Your task to perform on an android device: What's the weather going to be this weekend? Image 0: 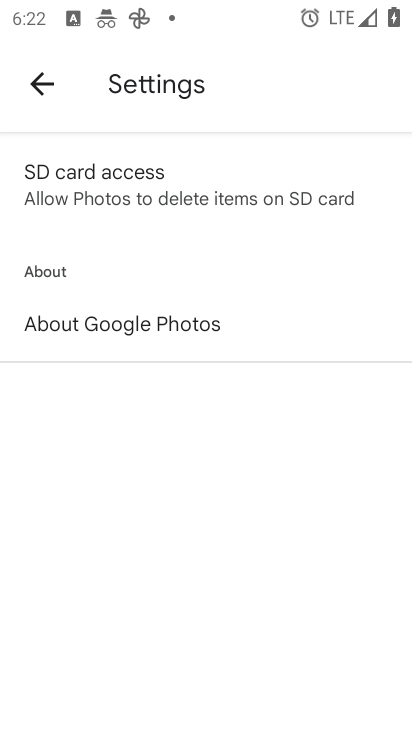
Step 0: press home button
Your task to perform on an android device: What's the weather going to be this weekend? Image 1: 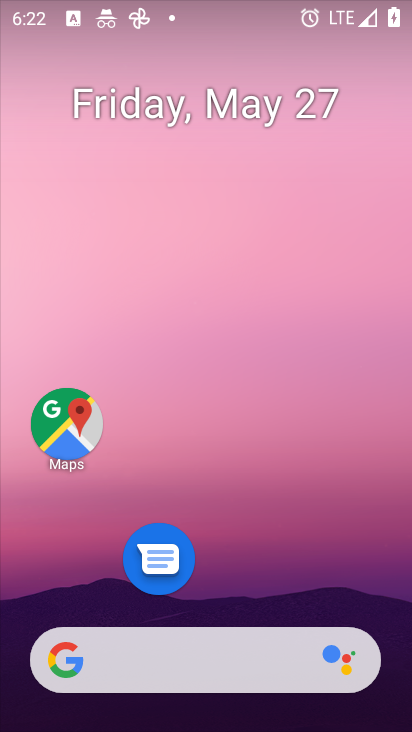
Step 1: drag from (318, 584) to (344, 726)
Your task to perform on an android device: What's the weather going to be this weekend? Image 2: 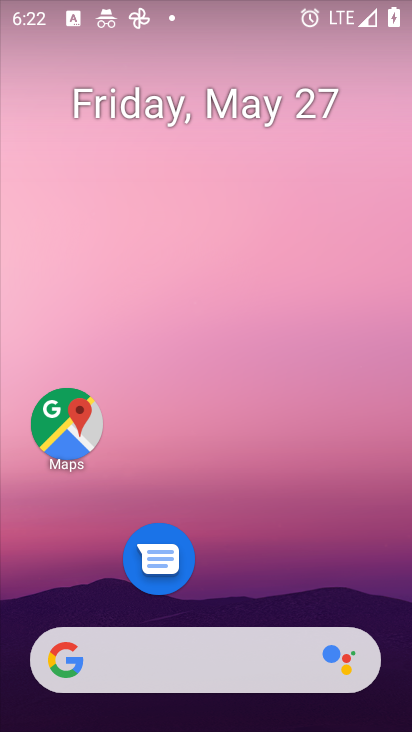
Step 2: drag from (11, 326) to (395, 218)
Your task to perform on an android device: What's the weather going to be this weekend? Image 3: 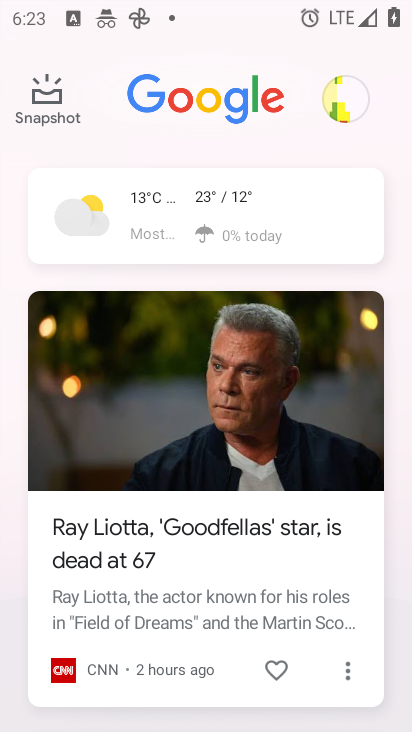
Step 3: click (224, 216)
Your task to perform on an android device: What's the weather going to be this weekend? Image 4: 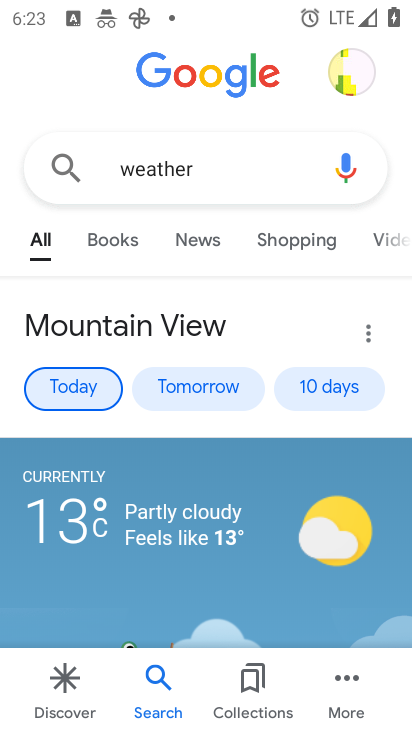
Step 4: click (308, 382)
Your task to perform on an android device: What's the weather going to be this weekend? Image 5: 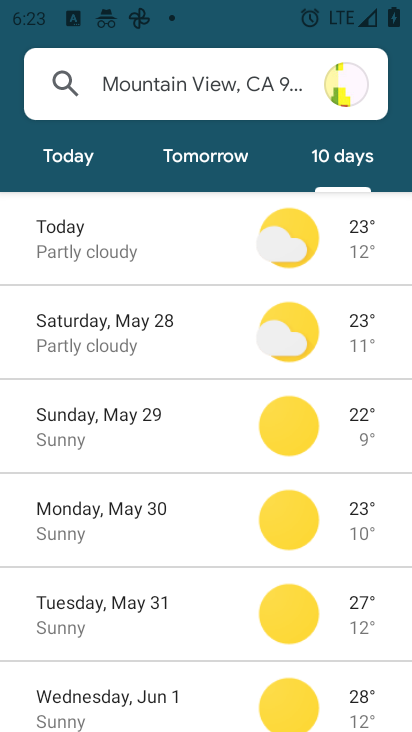
Step 5: task complete